Your task to perform on an android device: Search for logitech g pro on target, select the first entry, add it to the cart, then select checkout. Image 0: 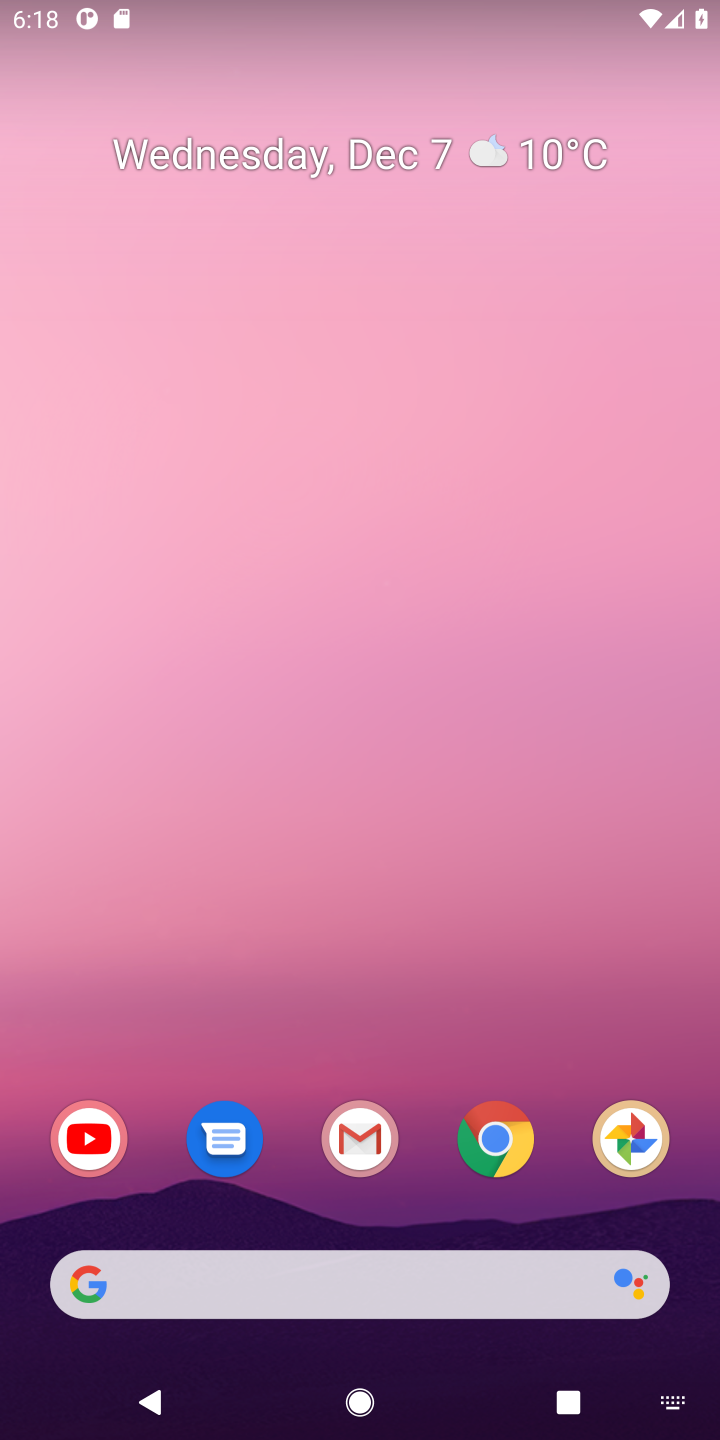
Step 0: press home button
Your task to perform on an android device: Search for logitech g pro on target, select the first entry, add it to the cart, then select checkout. Image 1: 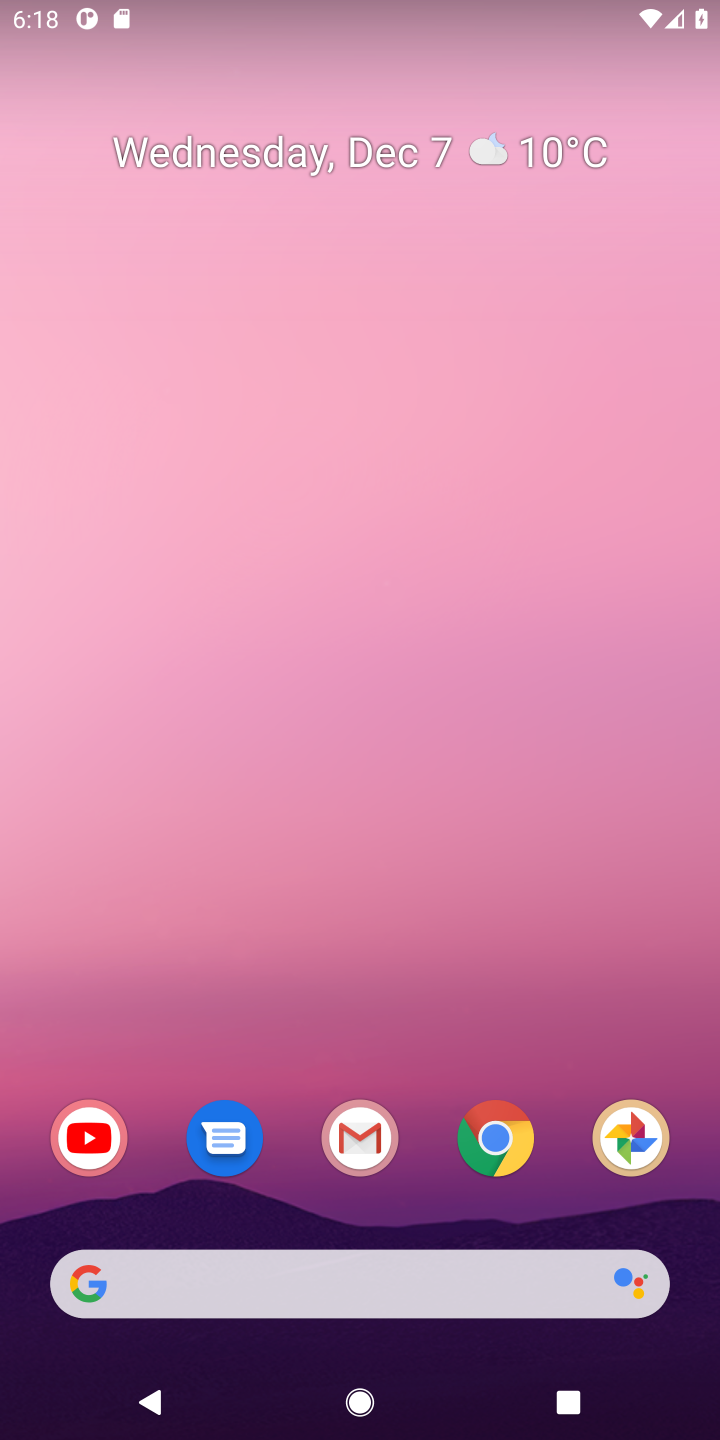
Step 1: click (141, 1283)
Your task to perform on an android device: Search for logitech g pro on target, select the first entry, add it to the cart, then select checkout. Image 2: 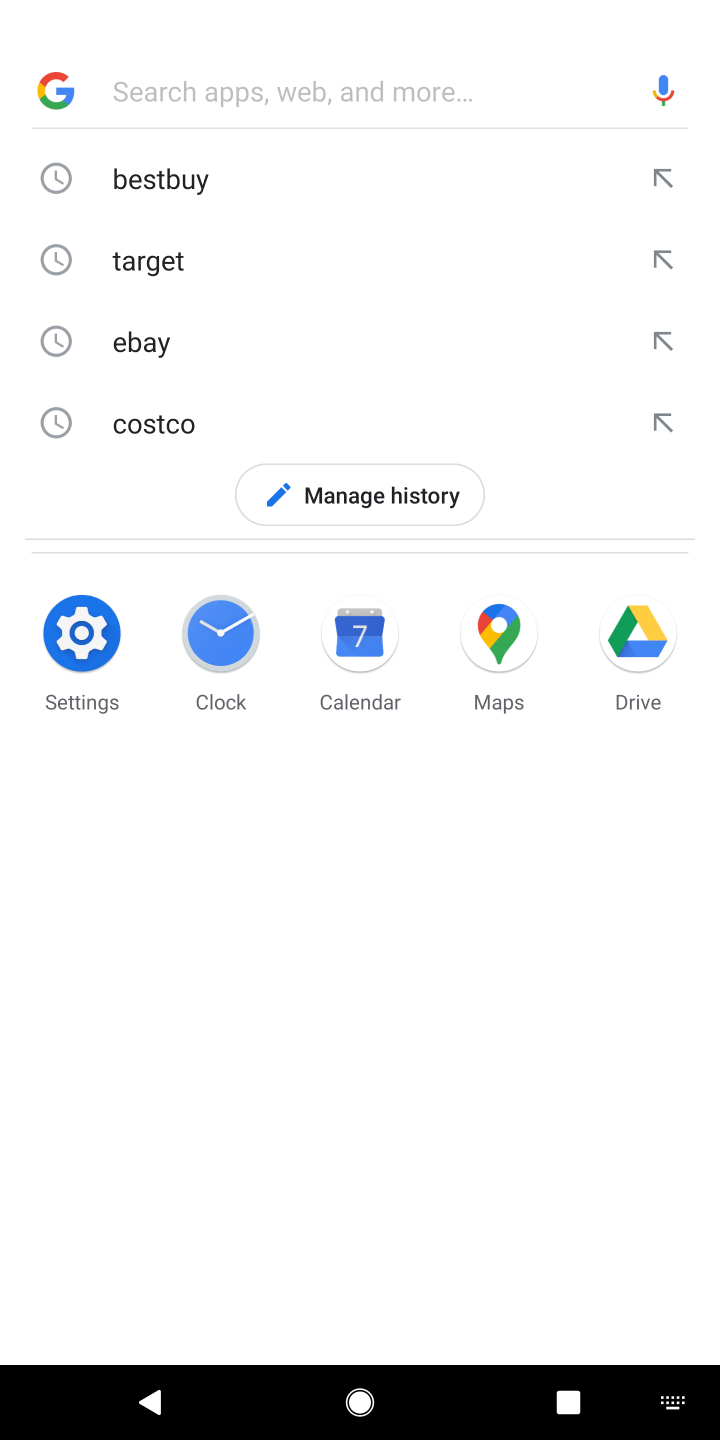
Step 2: type "target"
Your task to perform on an android device: Search for logitech g pro on target, select the first entry, add it to the cart, then select checkout. Image 3: 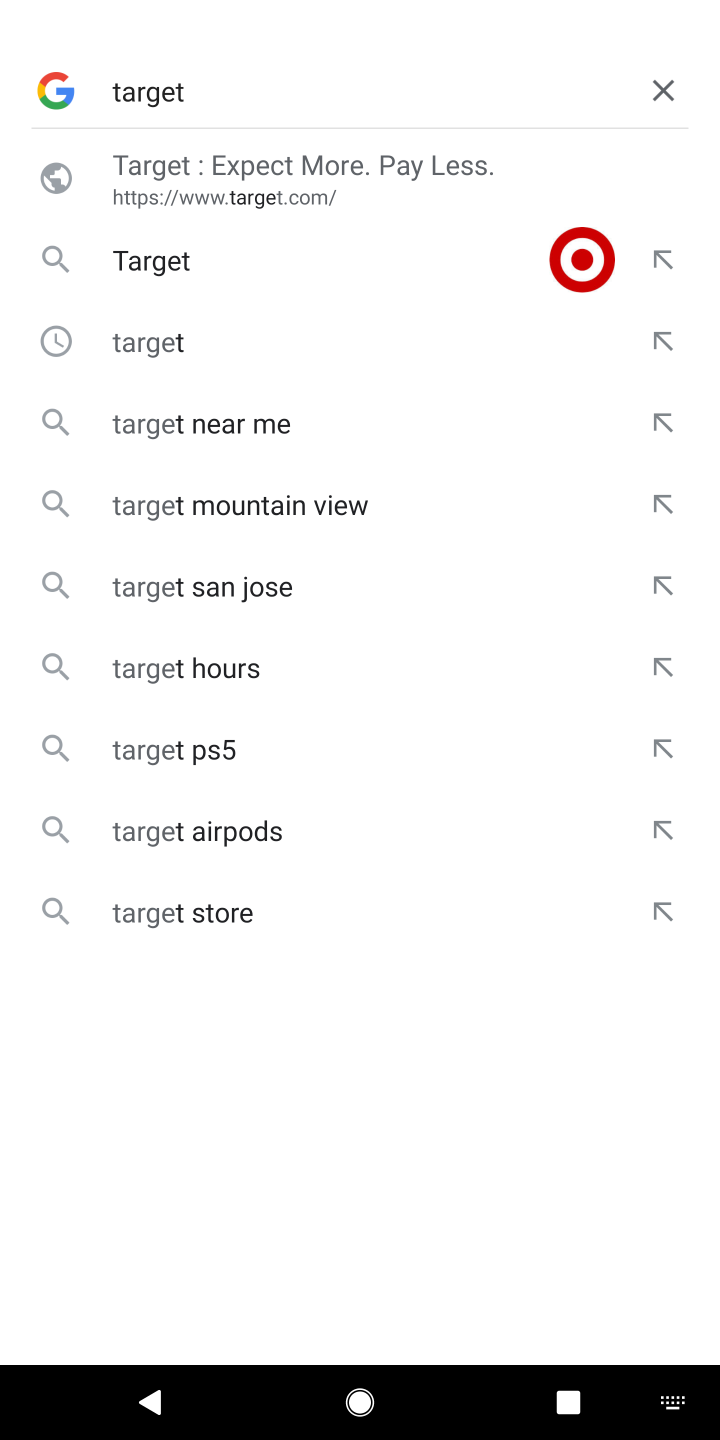
Step 3: press enter
Your task to perform on an android device: Search for logitech g pro on target, select the first entry, add it to the cart, then select checkout. Image 4: 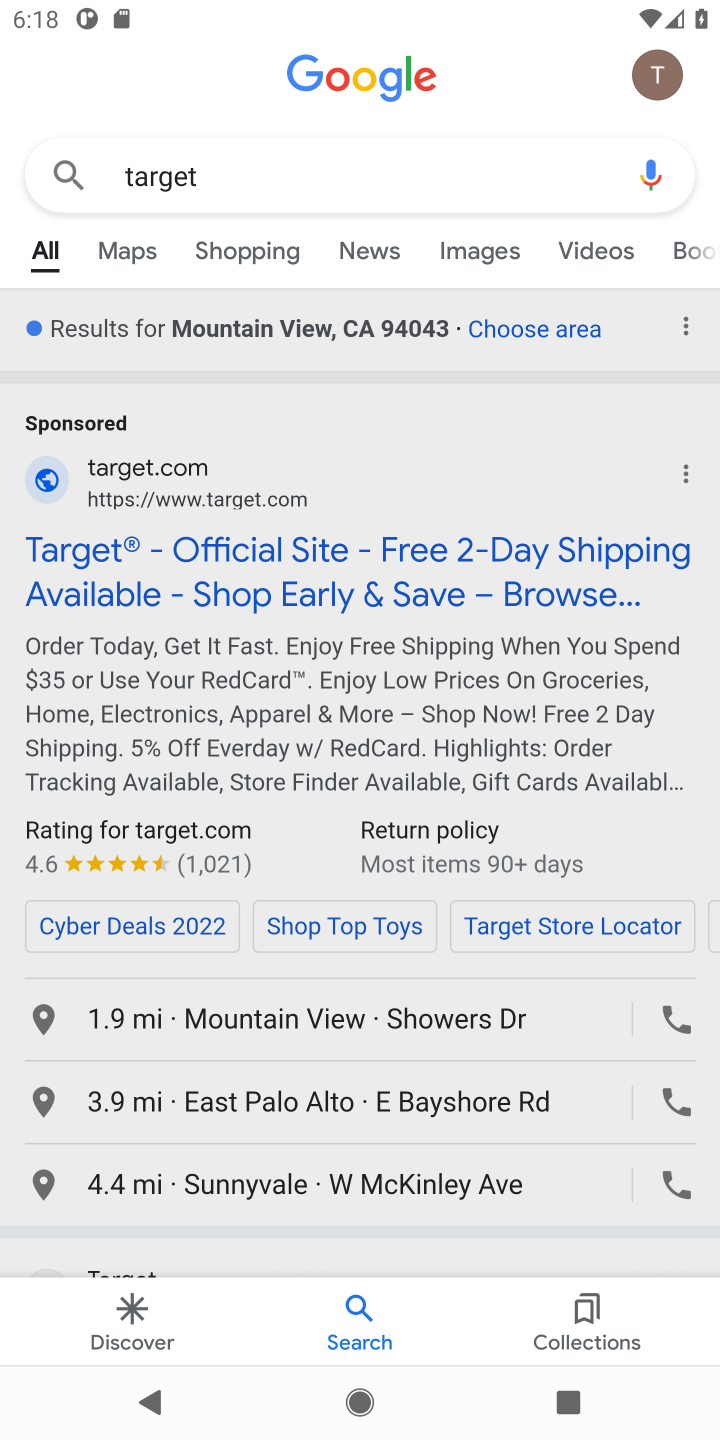
Step 4: click (305, 569)
Your task to perform on an android device: Search for logitech g pro on target, select the first entry, add it to the cart, then select checkout. Image 5: 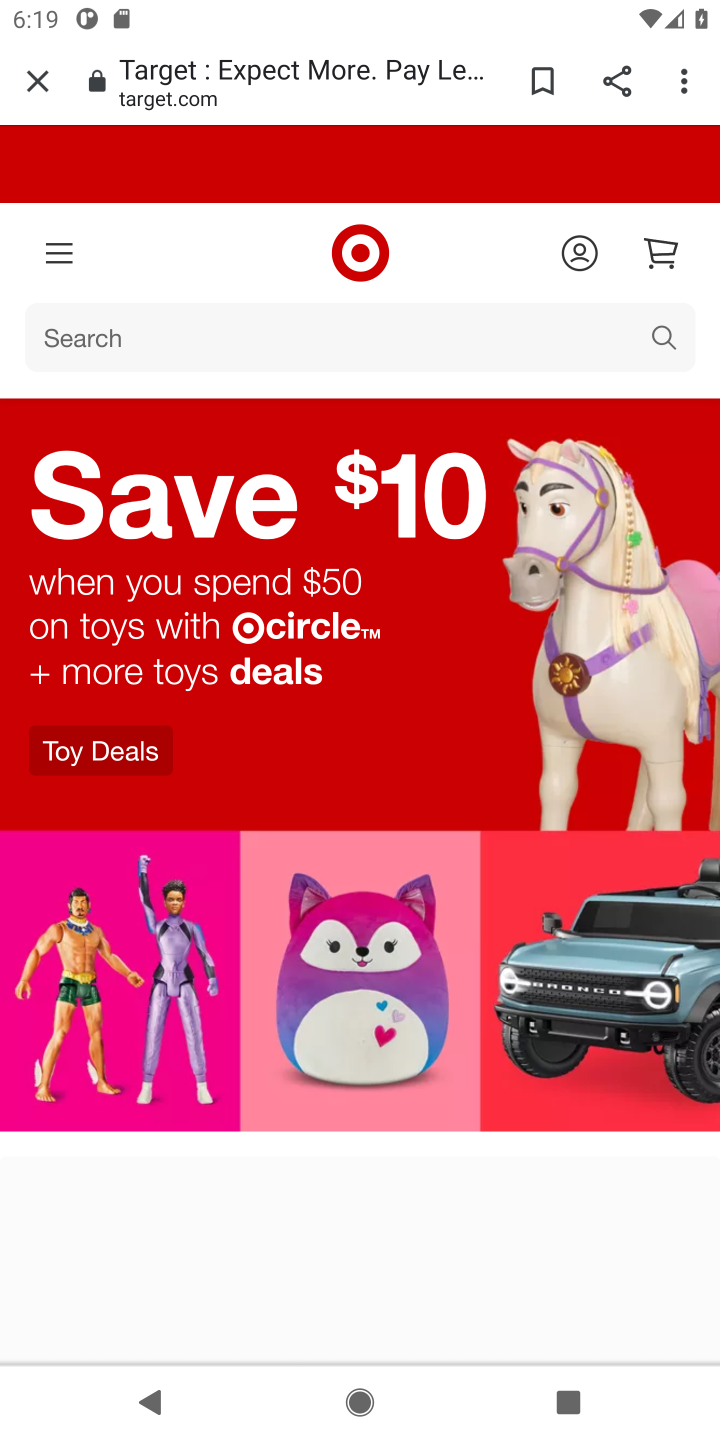
Step 5: click (81, 340)
Your task to perform on an android device: Search for logitech g pro on target, select the first entry, add it to the cart, then select checkout. Image 6: 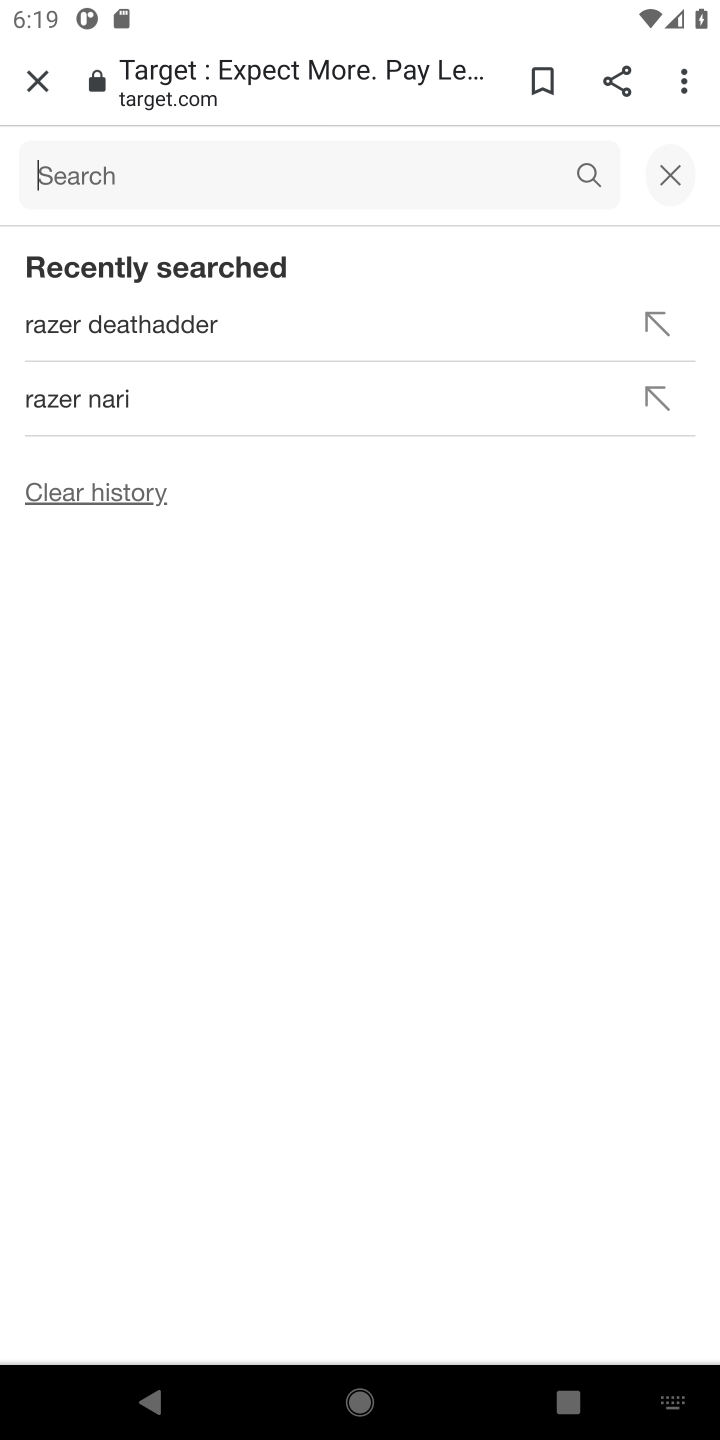
Step 6: type "logitech g pro"
Your task to perform on an android device: Search for logitech g pro on target, select the first entry, add it to the cart, then select checkout. Image 7: 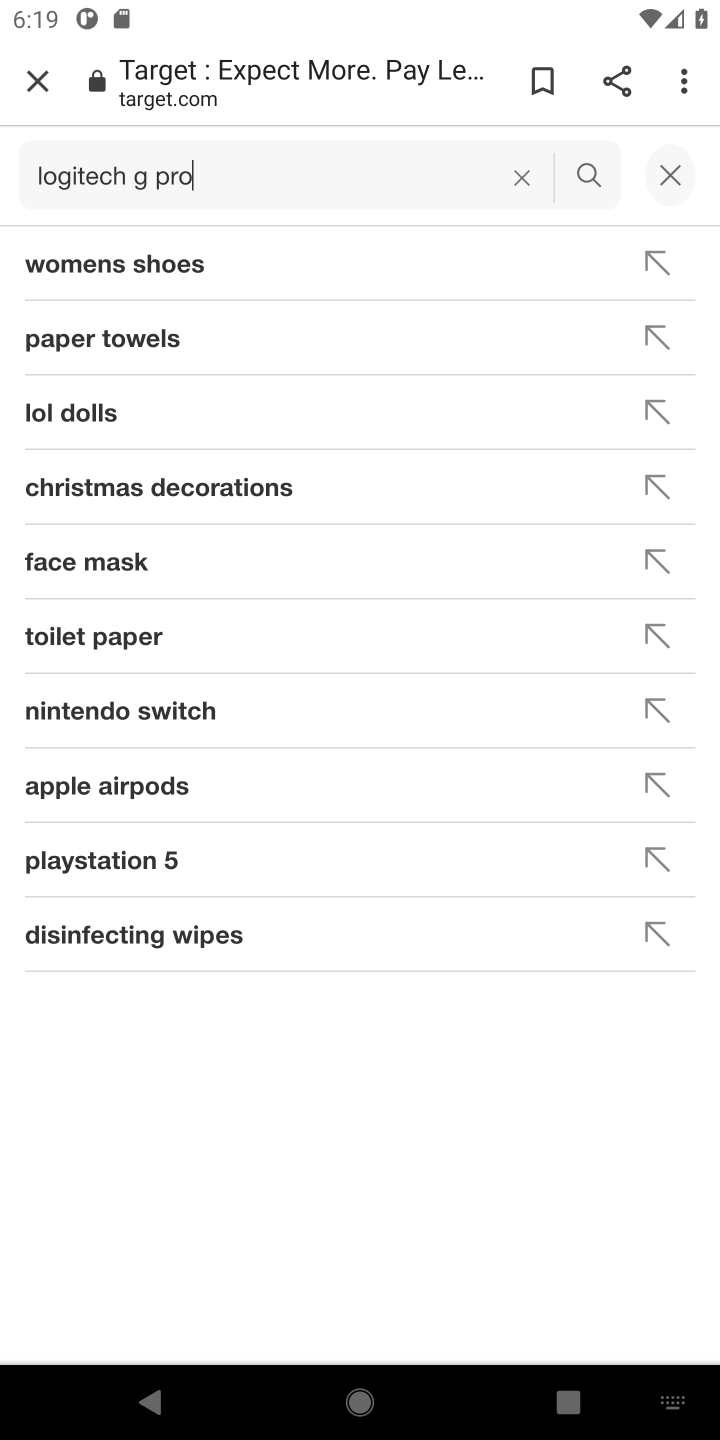
Step 7: press enter
Your task to perform on an android device: Search for logitech g pro on target, select the first entry, add it to the cart, then select checkout. Image 8: 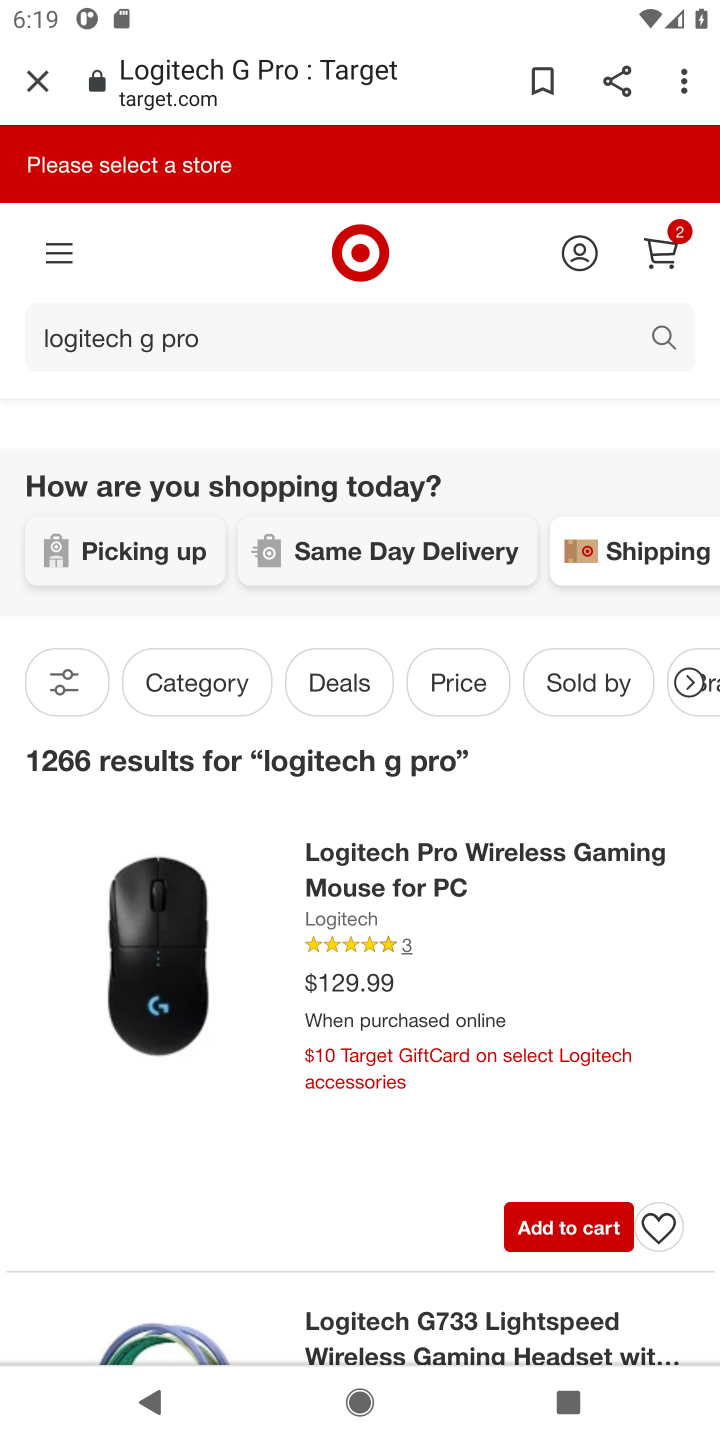
Step 8: drag from (480, 1023) to (547, 710)
Your task to perform on an android device: Search for logitech g pro on target, select the first entry, add it to the cart, then select checkout. Image 9: 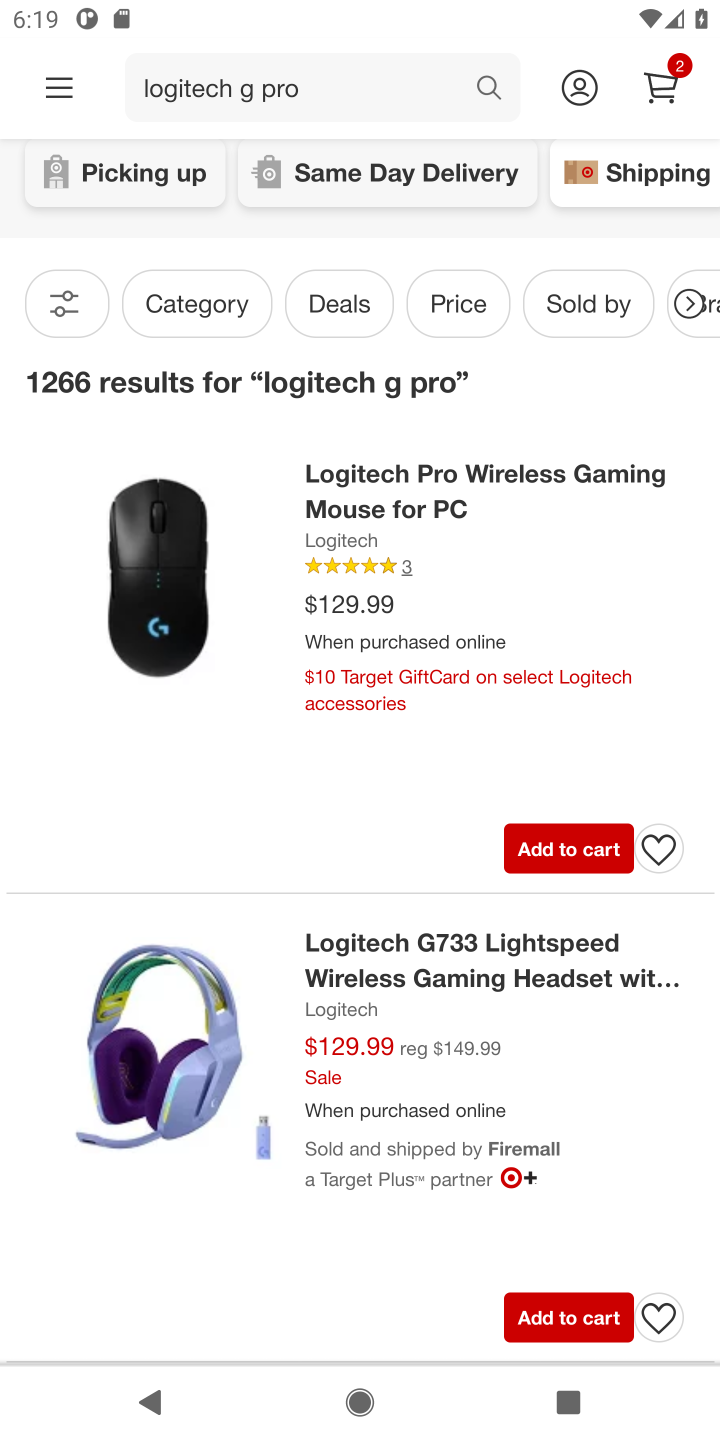
Step 9: click (572, 852)
Your task to perform on an android device: Search for logitech g pro on target, select the first entry, add it to the cart, then select checkout. Image 10: 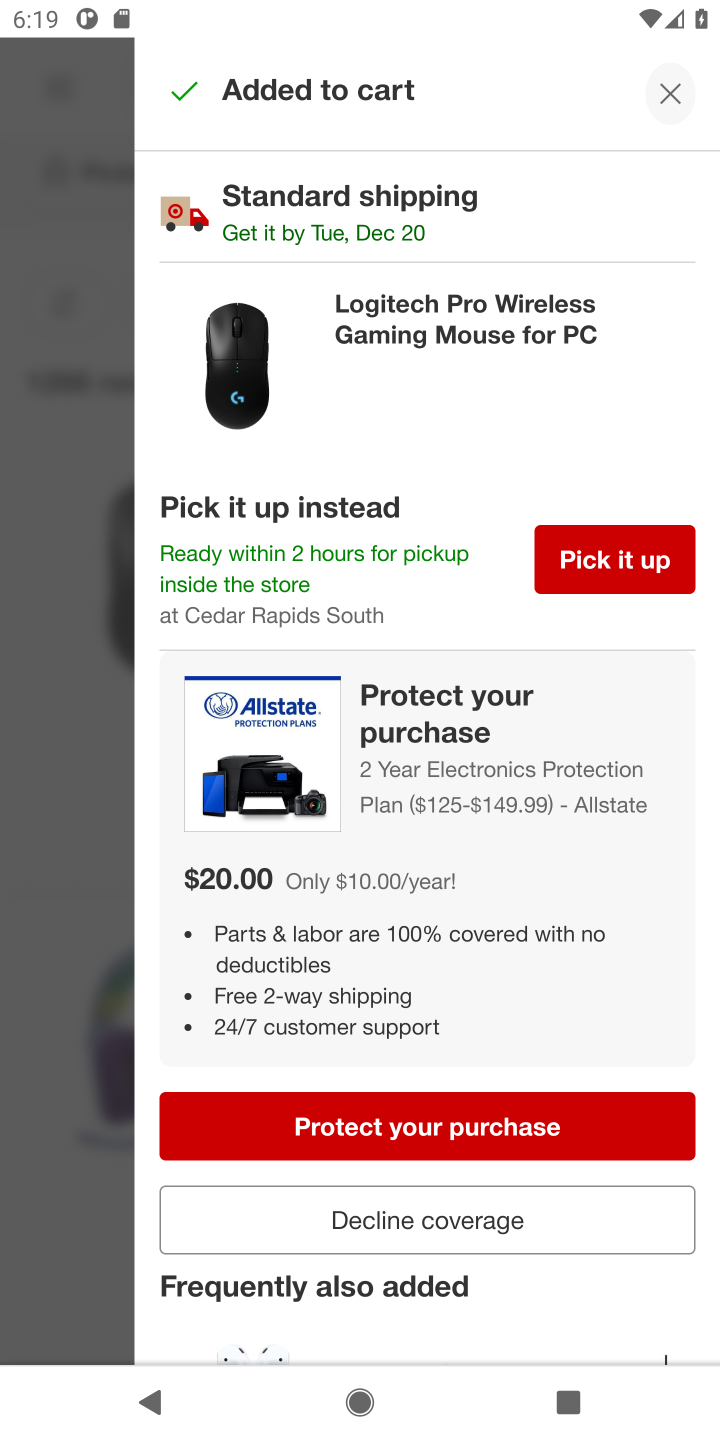
Step 10: click (445, 1218)
Your task to perform on an android device: Search for logitech g pro on target, select the first entry, add it to the cart, then select checkout. Image 11: 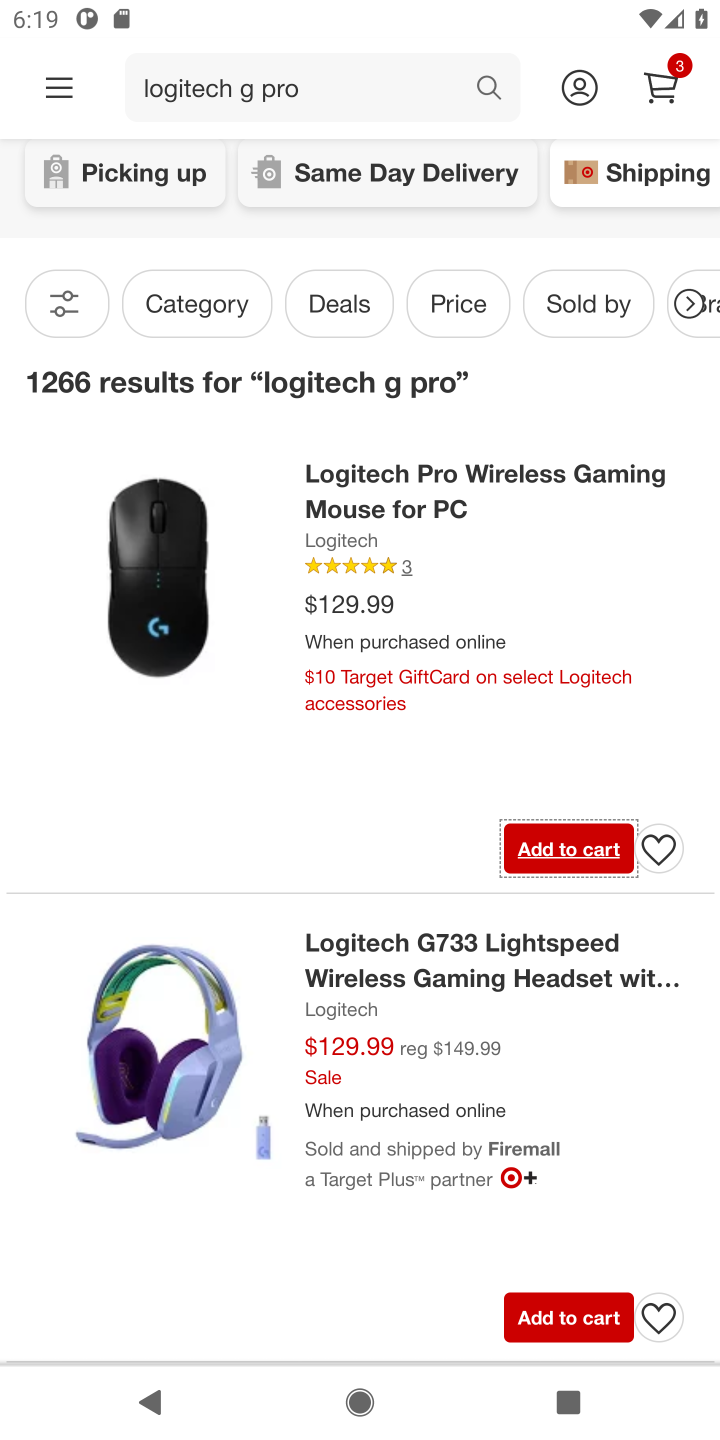
Step 11: click (650, 74)
Your task to perform on an android device: Search for logitech g pro on target, select the first entry, add it to the cart, then select checkout. Image 12: 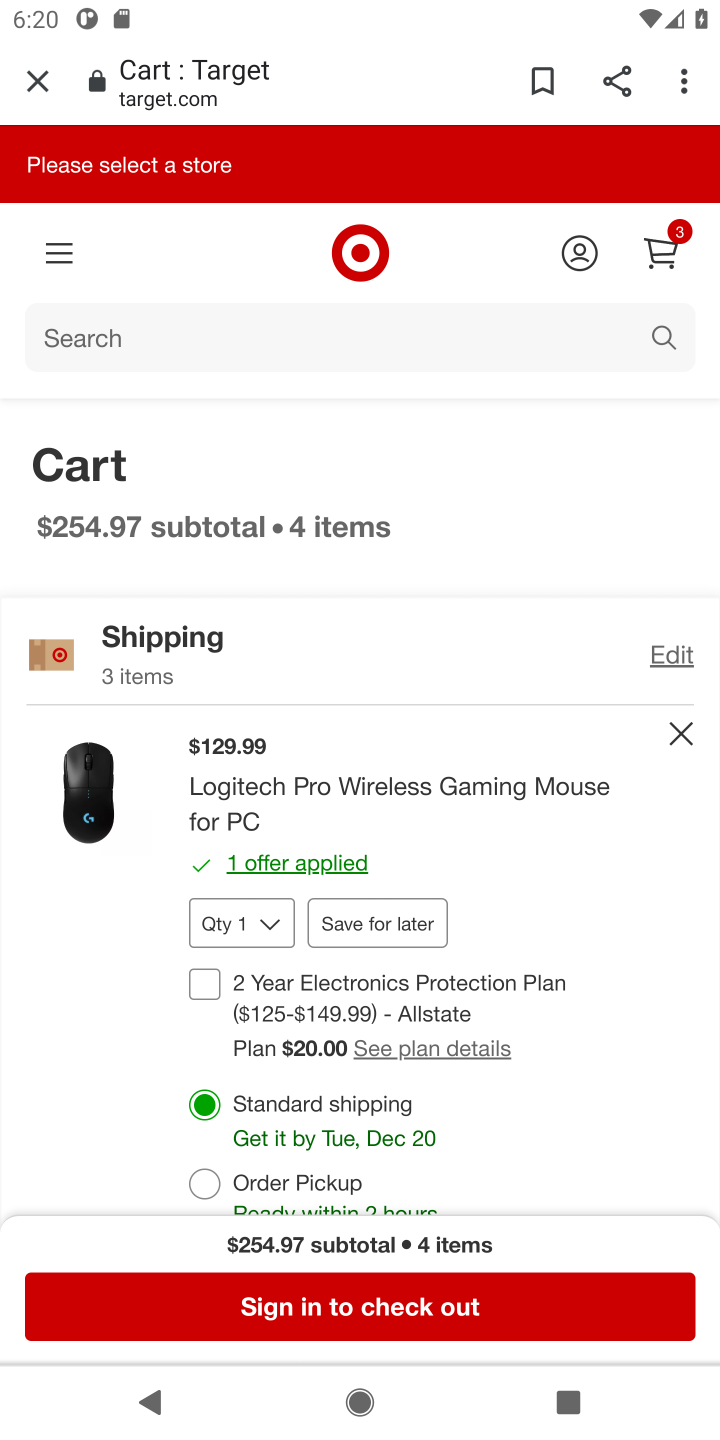
Step 12: click (383, 1312)
Your task to perform on an android device: Search for logitech g pro on target, select the first entry, add it to the cart, then select checkout. Image 13: 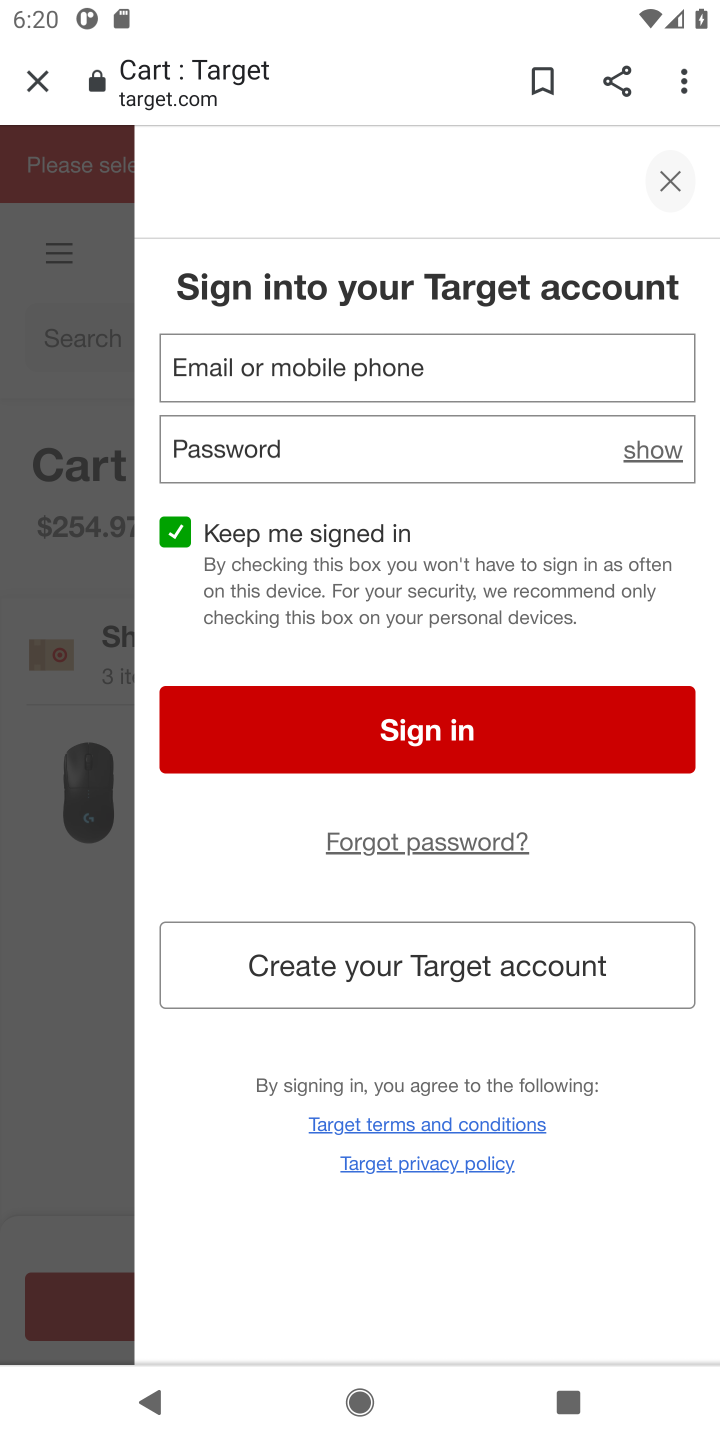
Step 13: task complete